Your task to perform on an android device: toggle location history Image 0: 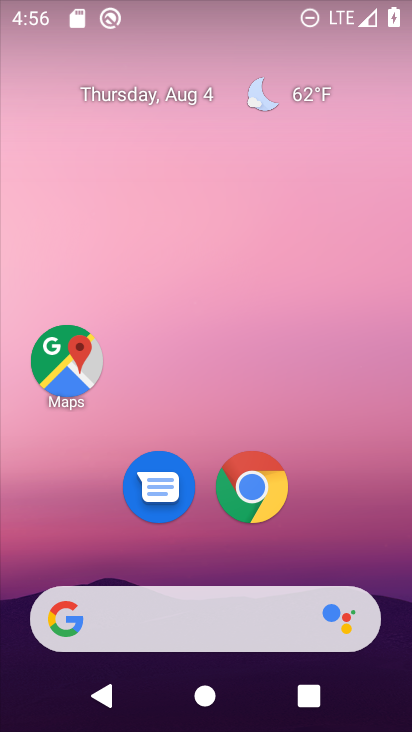
Step 0: drag from (97, 564) to (198, 92)
Your task to perform on an android device: toggle location history Image 1: 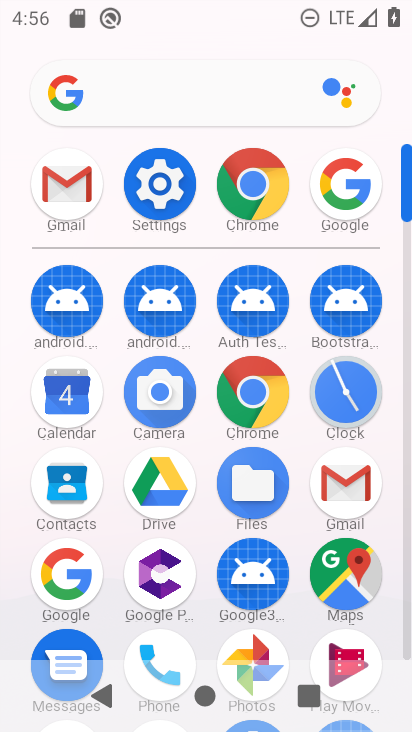
Step 1: click (137, 200)
Your task to perform on an android device: toggle location history Image 2: 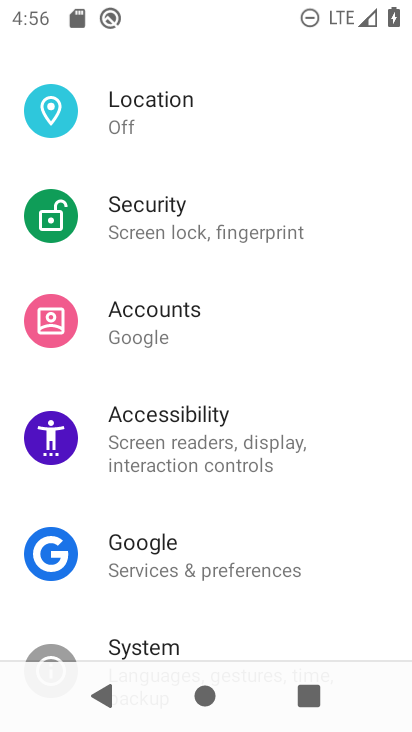
Step 2: drag from (274, 174) to (260, 342)
Your task to perform on an android device: toggle location history Image 3: 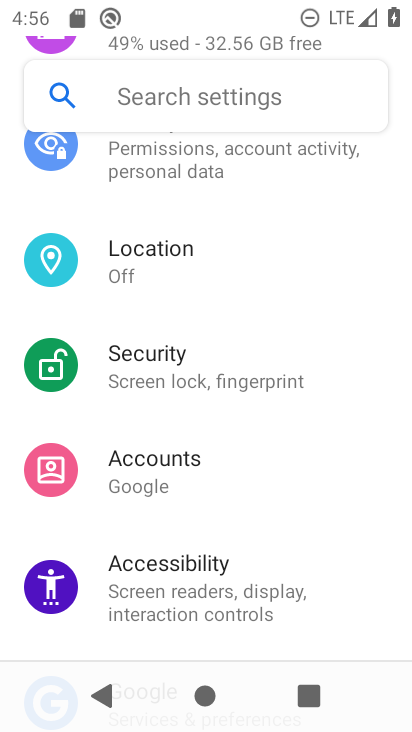
Step 3: click (169, 262)
Your task to perform on an android device: toggle location history Image 4: 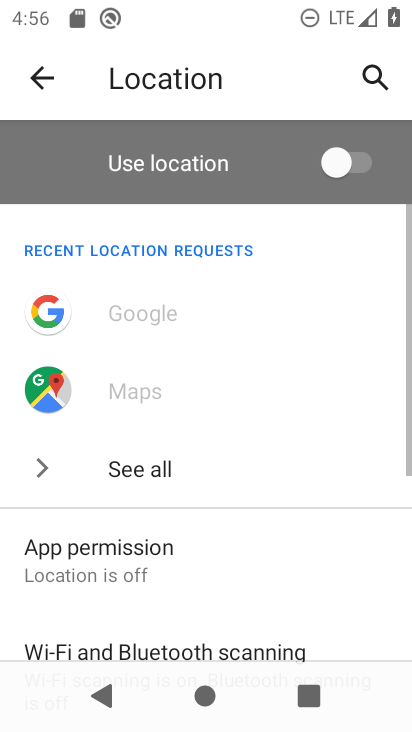
Step 4: drag from (170, 620) to (291, 47)
Your task to perform on an android device: toggle location history Image 5: 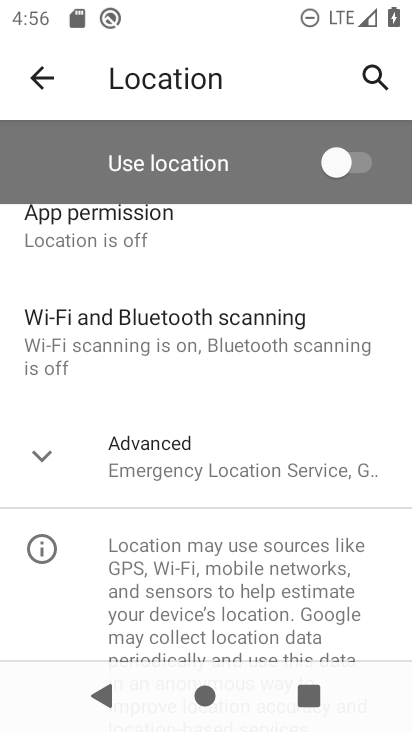
Step 5: click (115, 466)
Your task to perform on an android device: toggle location history Image 6: 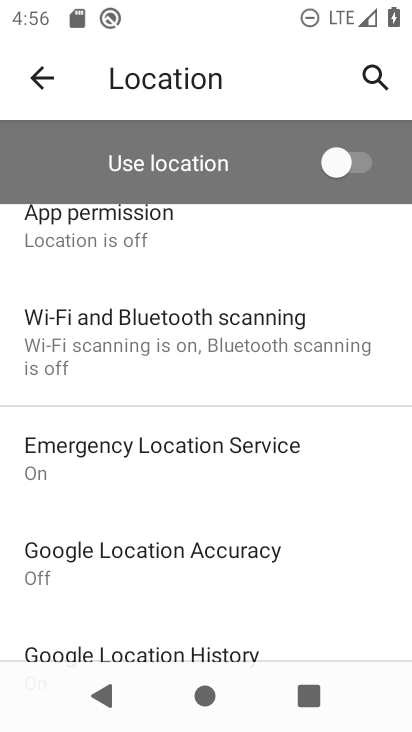
Step 6: click (151, 643)
Your task to perform on an android device: toggle location history Image 7: 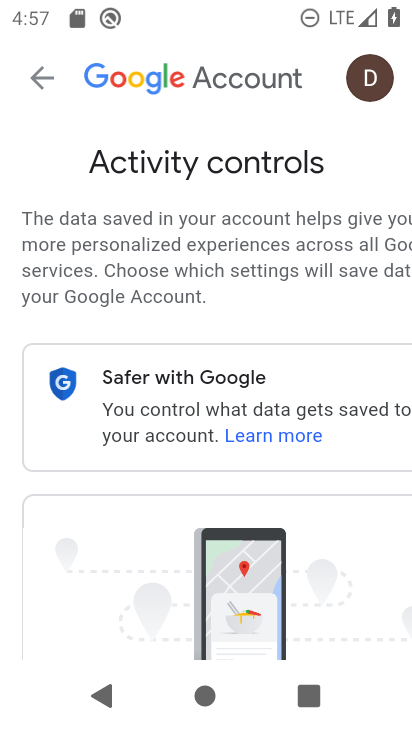
Step 7: drag from (188, 637) to (214, 152)
Your task to perform on an android device: toggle location history Image 8: 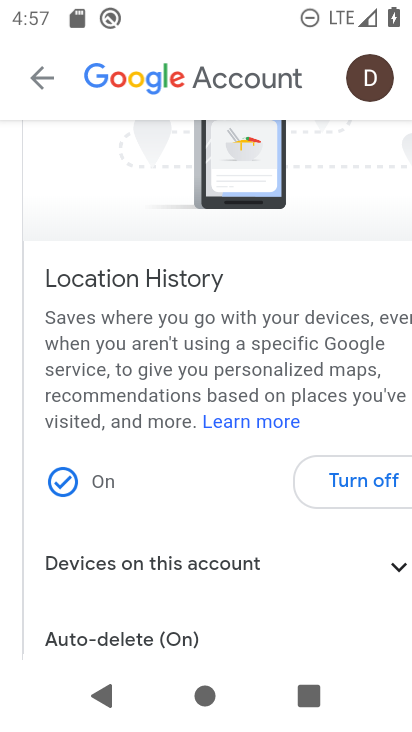
Step 8: click (349, 481)
Your task to perform on an android device: toggle location history Image 9: 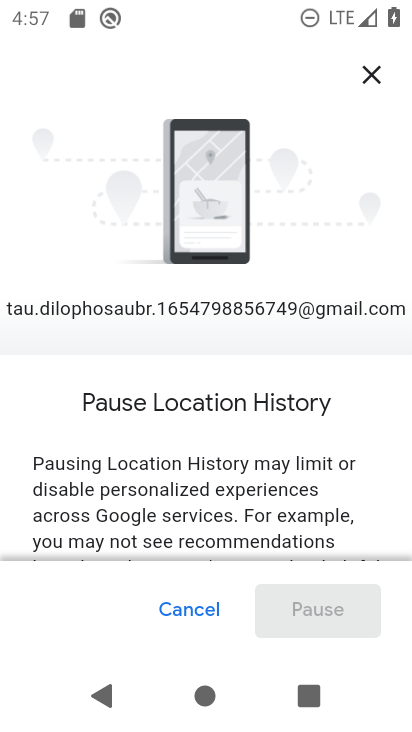
Step 9: drag from (178, 525) to (241, 115)
Your task to perform on an android device: toggle location history Image 10: 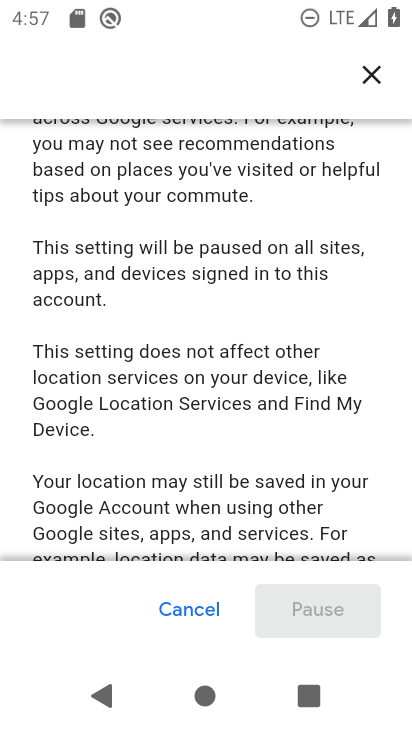
Step 10: drag from (195, 487) to (285, 59)
Your task to perform on an android device: toggle location history Image 11: 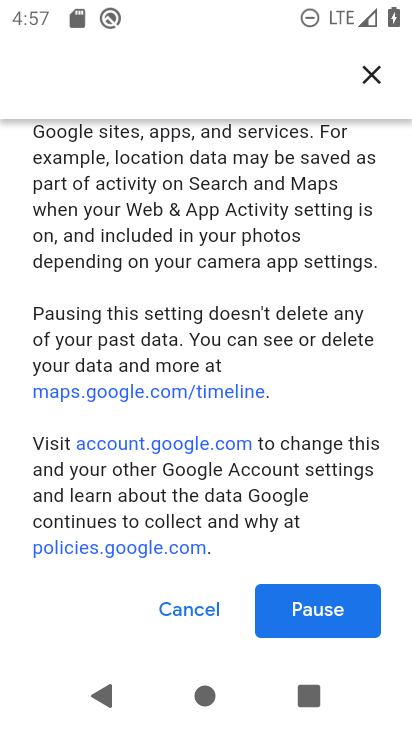
Step 11: drag from (174, 490) to (249, 97)
Your task to perform on an android device: toggle location history Image 12: 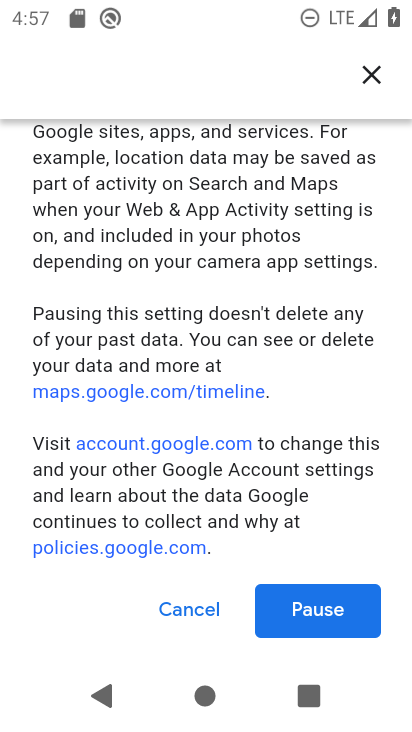
Step 12: click (328, 616)
Your task to perform on an android device: toggle location history Image 13: 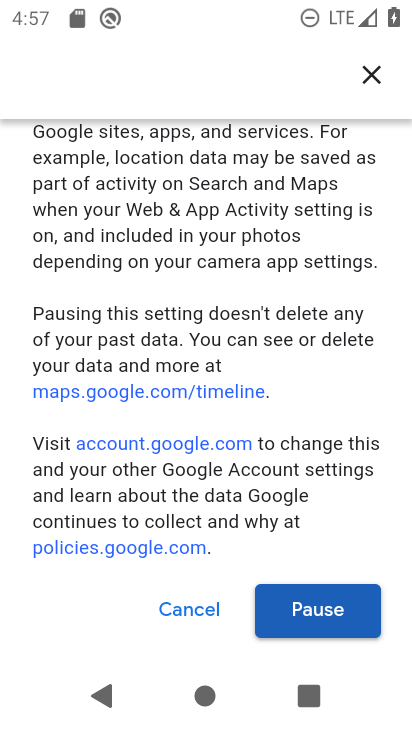
Step 13: click (306, 614)
Your task to perform on an android device: toggle location history Image 14: 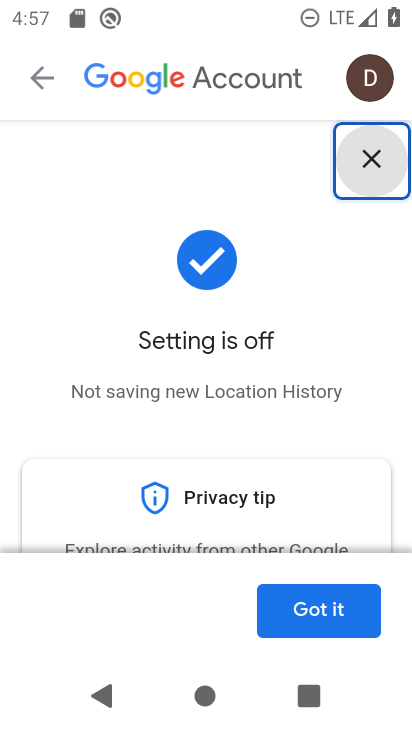
Step 14: task complete